Your task to perform on an android device: empty trash in google photos Image 0: 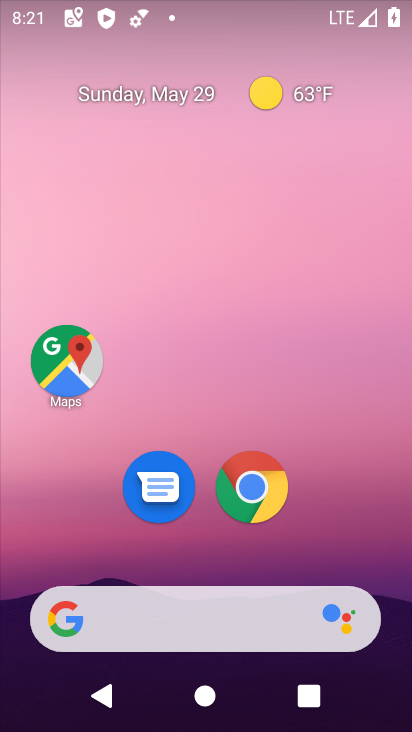
Step 0: drag from (226, 538) to (294, 133)
Your task to perform on an android device: empty trash in google photos Image 1: 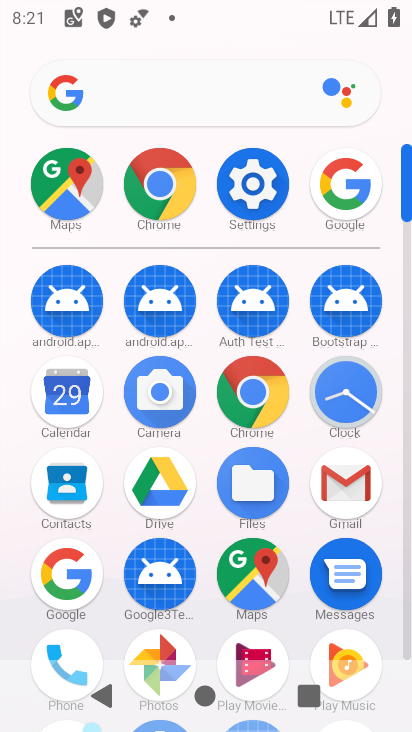
Step 1: drag from (284, 518) to (291, 211)
Your task to perform on an android device: empty trash in google photos Image 2: 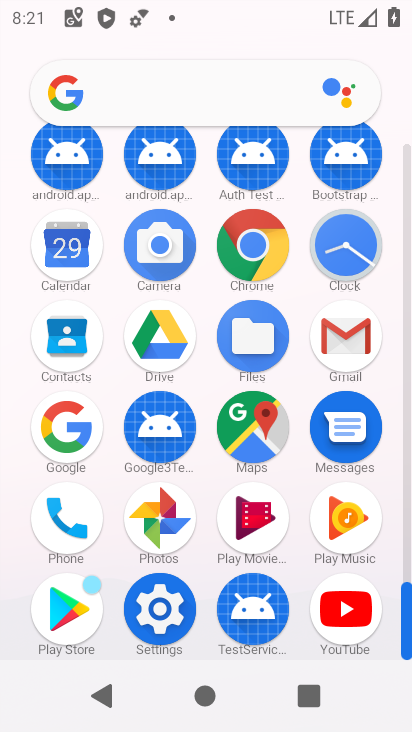
Step 2: click (158, 535)
Your task to perform on an android device: empty trash in google photos Image 3: 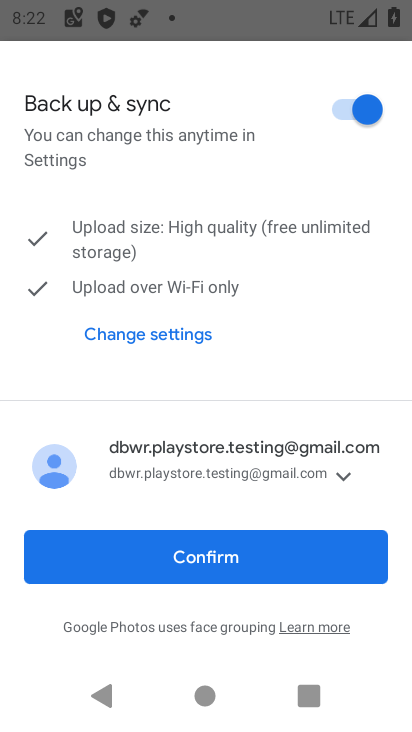
Step 3: click (222, 560)
Your task to perform on an android device: empty trash in google photos Image 4: 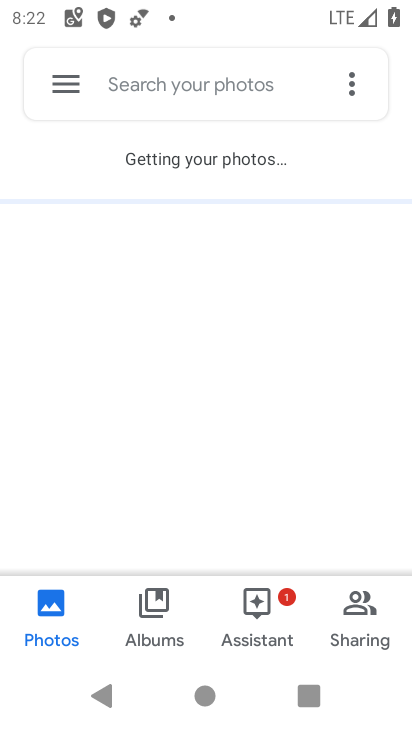
Step 4: click (73, 90)
Your task to perform on an android device: empty trash in google photos Image 5: 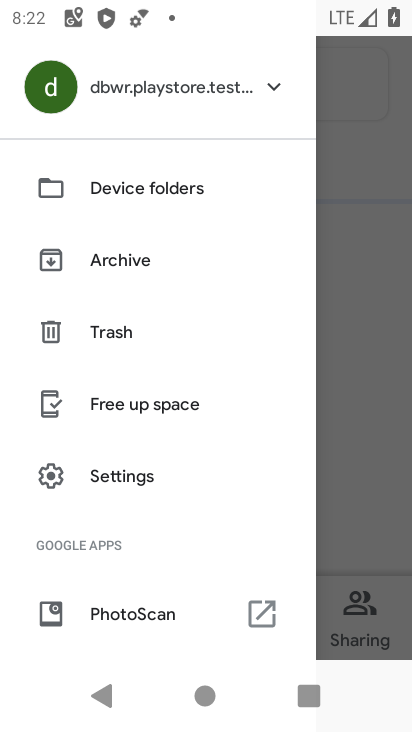
Step 5: click (142, 335)
Your task to perform on an android device: empty trash in google photos Image 6: 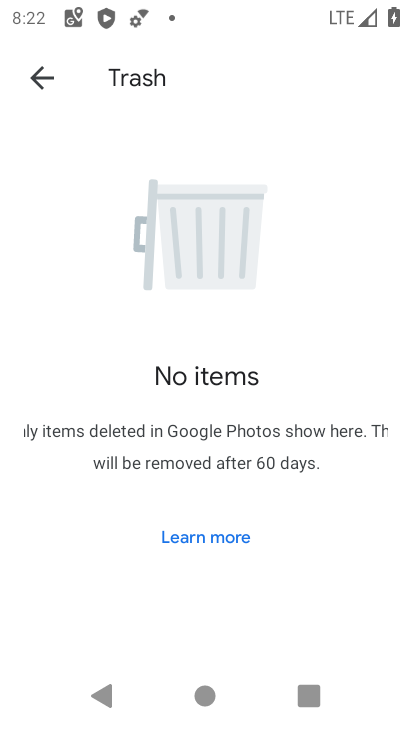
Step 6: task complete